Your task to perform on an android device: Open location settings Image 0: 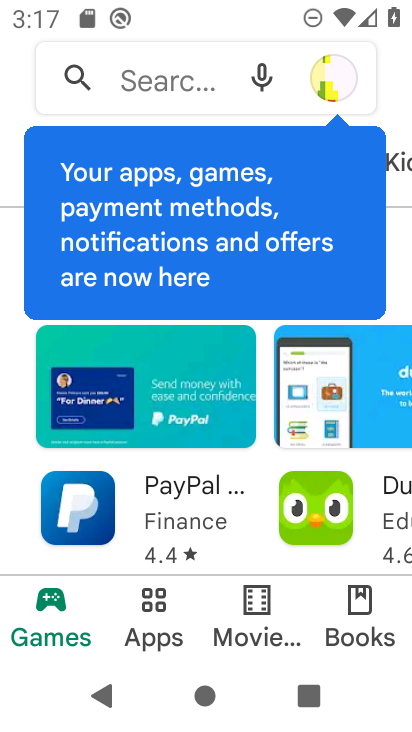
Step 0: press home button
Your task to perform on an android device: Open location settings Image 1: 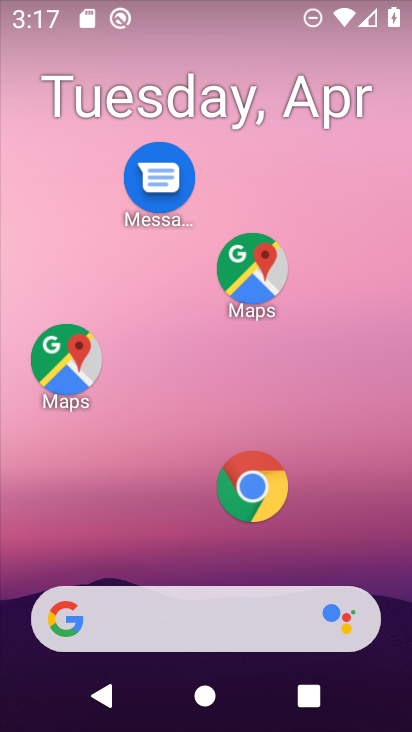
Step 1: drag from (237, 495) to (296, 139)
Your task to perform on an android device: Open location settings Image 2: 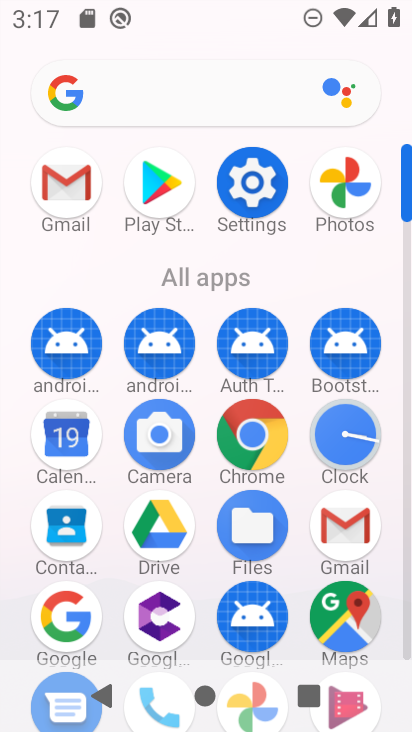
Step 2: click (255, 212)
Your task to perform on an android device: Open location settings Image 3: 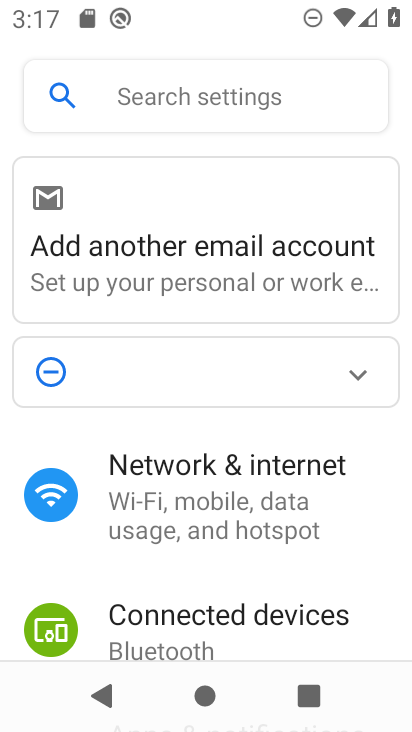
Step 3: drag from (181, 609) to (284, 306)
Your task to perform on an android device: Open location settings Image 4: 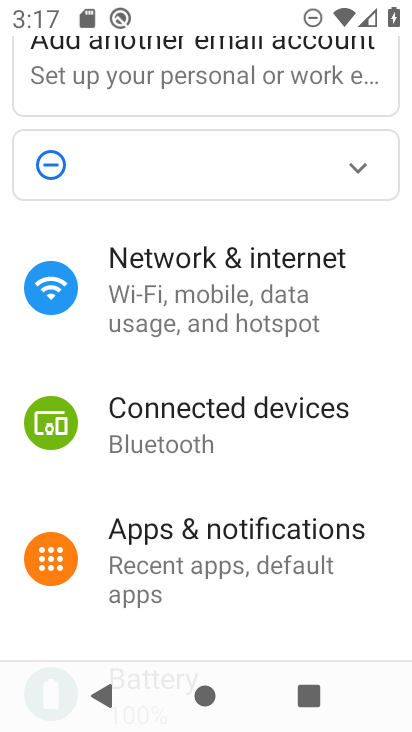
Step 4: drag from (213, 667) to (247, 210)
Your task to perform on an android device: Open location settings Image 5: 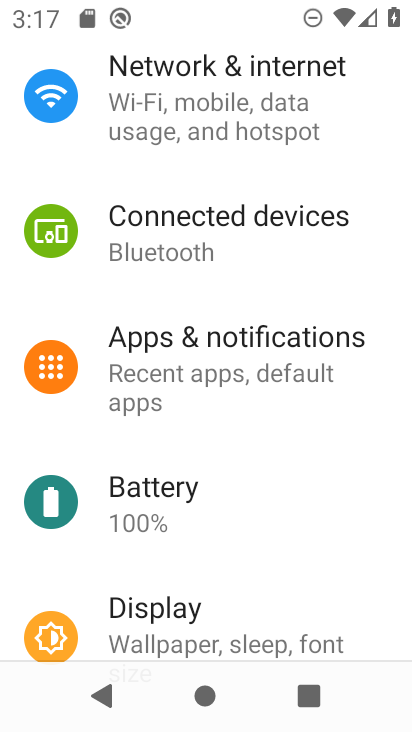
Step 5: drag from (218, 429) to (250, 137)
Your task to perform on an android device: Open location settings Image 6: 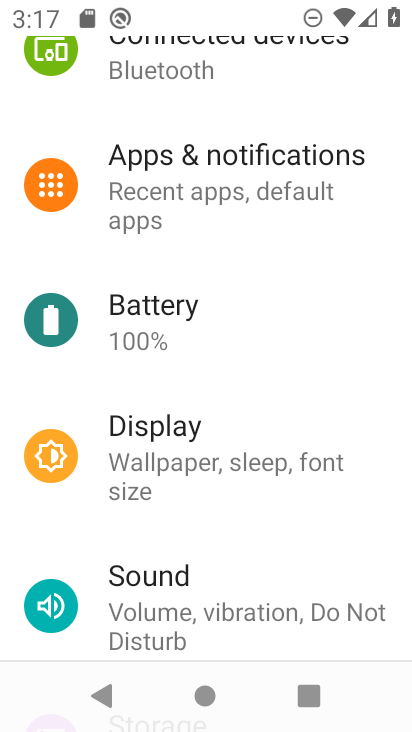
Step 6: drag from (228, 496) to (246, 229)
Your task to perform on an android device: Open location settings Image 7: 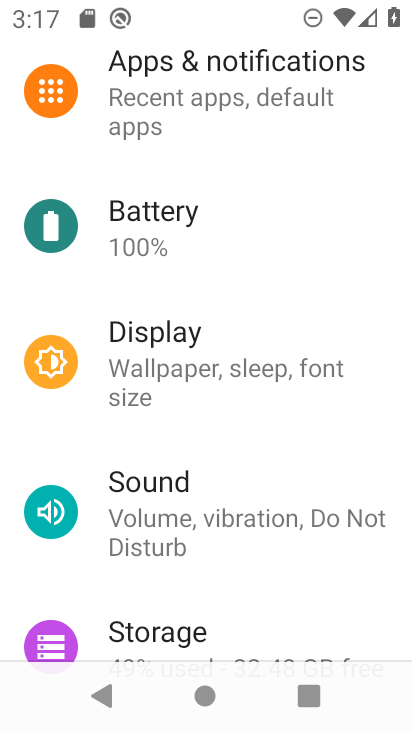
Step 7: drag from (245, 567) to (239, 203)
Your task to perform on an android device: Open location settings Image 8: 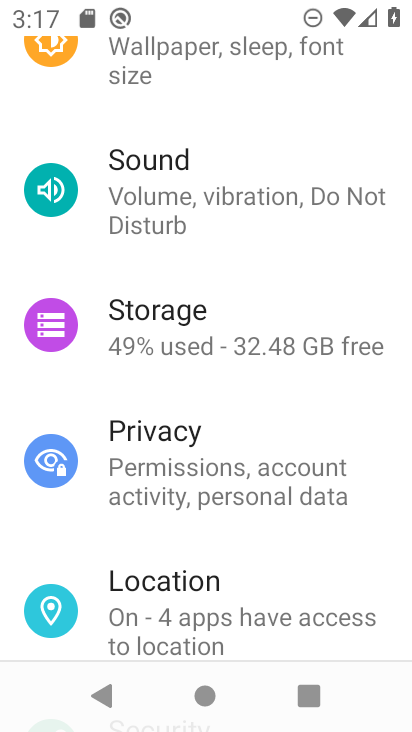
Step 8: click (225, 595)
Your task to perform on an android device: Open location settings Image 9: 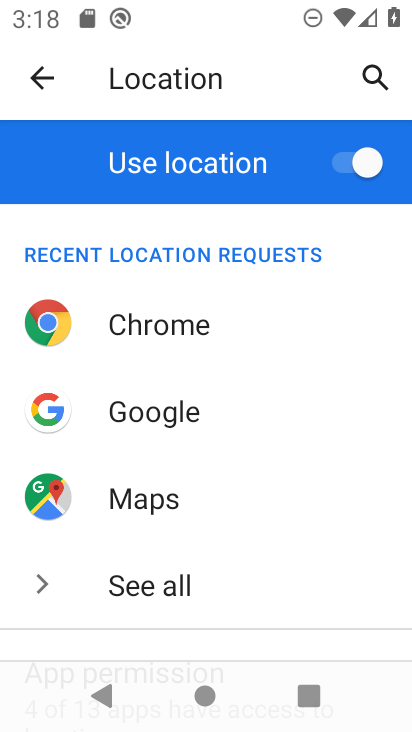
Step 9: task complete